Your task to perform on an android device: turn off translation in the chrome app Image 0: 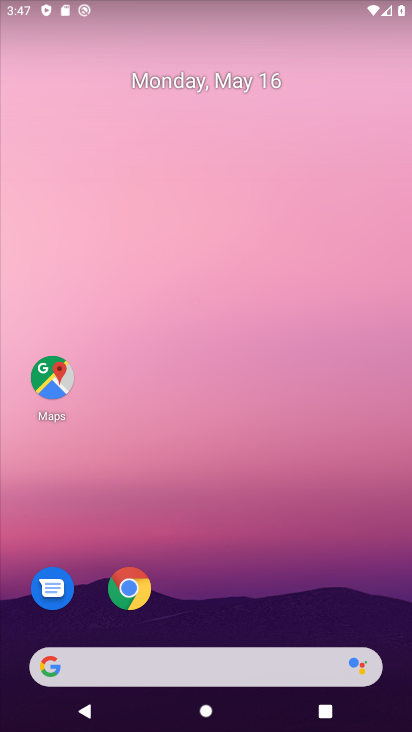
Step 0: click (121, 592)
Your task to perform on an android device: turn off translation in the chrome app Image 1: 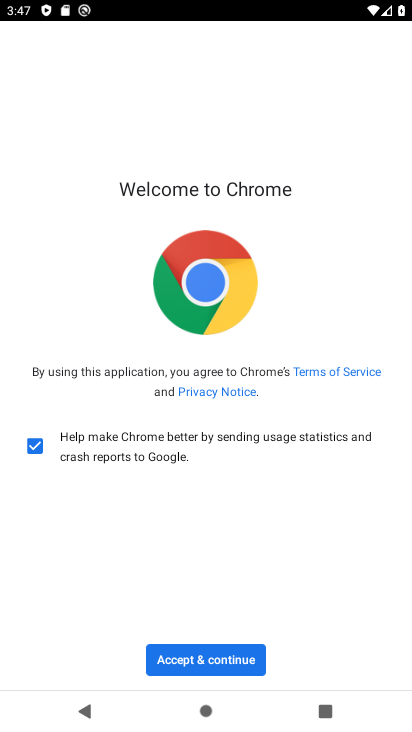
Step 1: click (229, 657)
Your task to perform on an android device: turn off translation in the chrome app Image 2: 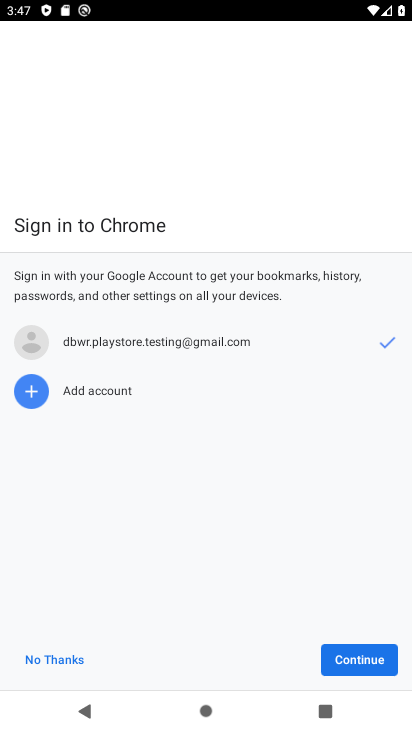
Step 2: click (358, 653)
Your task to perform on an android device: turn off translation in the chrome app Image 3: 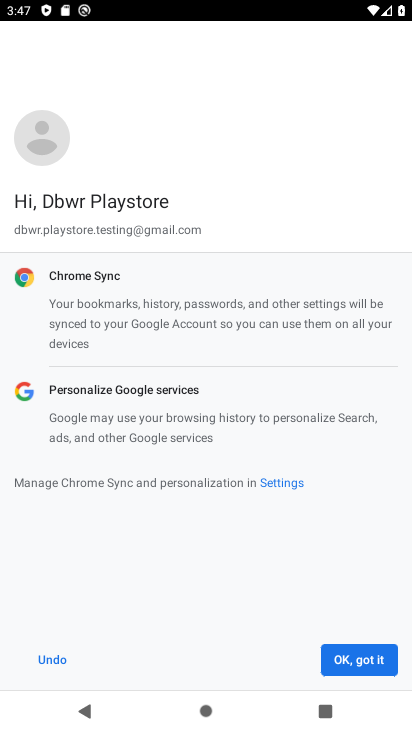
Step 3: click (362, 660)
Your task to perform on an android device: turn off translation in the chrome app Image 4: 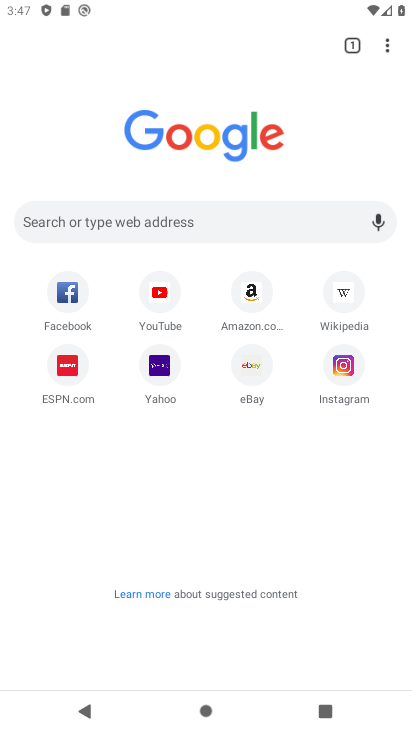
Step 4: click (395, 50)
Your task to perform on an android device: turn off translation in the chrome app Image 5: 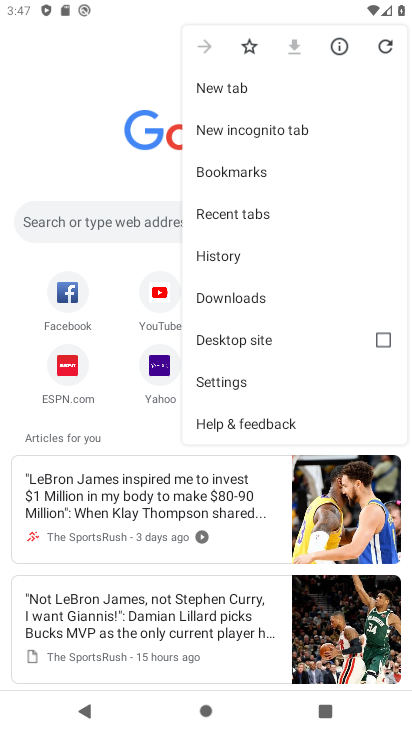
Step 5: click (258, 369)
Your task to perform on an android device: turn off translation in the chrome app Image 6: 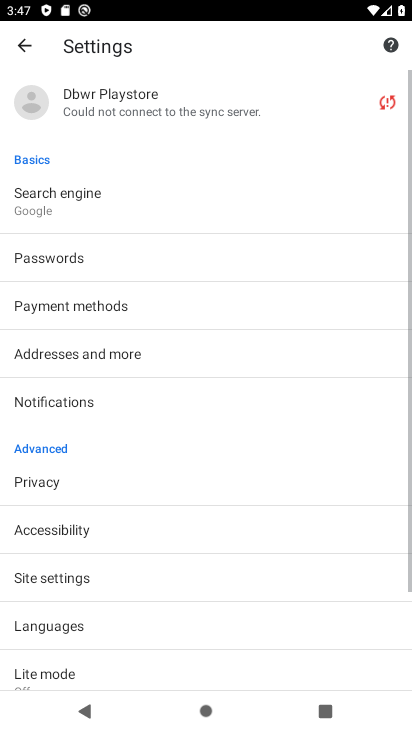
Step 6: drag from (145, 684) to (234, 473)
Your task to perform on an android device: turn off translation in the chrome app Image 7: 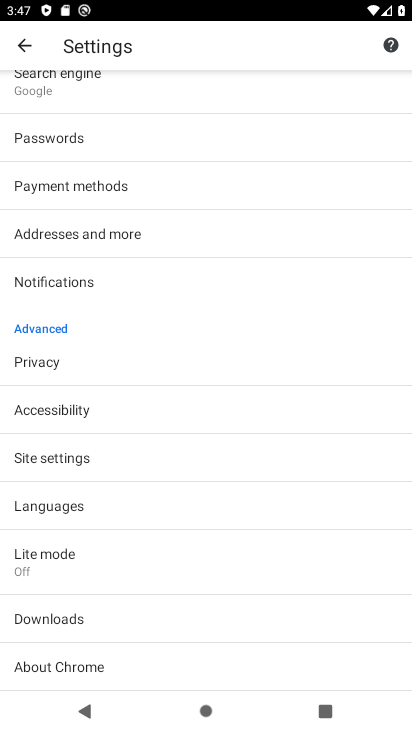
Step 7: click (73, 509)
Your task to perform on an android device: turn off translation in the chrome app Image 8: 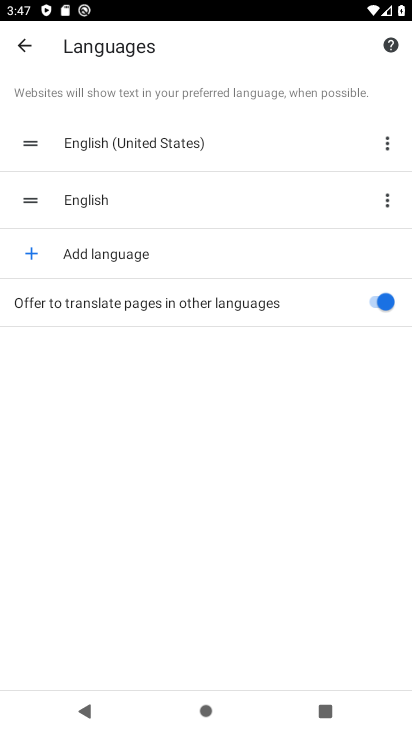
Step 8: click (374, 294)
Your task to perform on an android device: turn off translation in the chrome app Image 9: 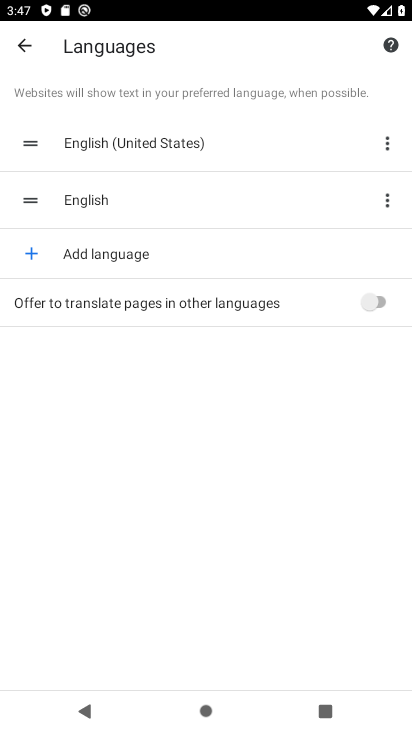
Step 9: task complete